Your task to perform on an android device: Open the web browser Image 0: 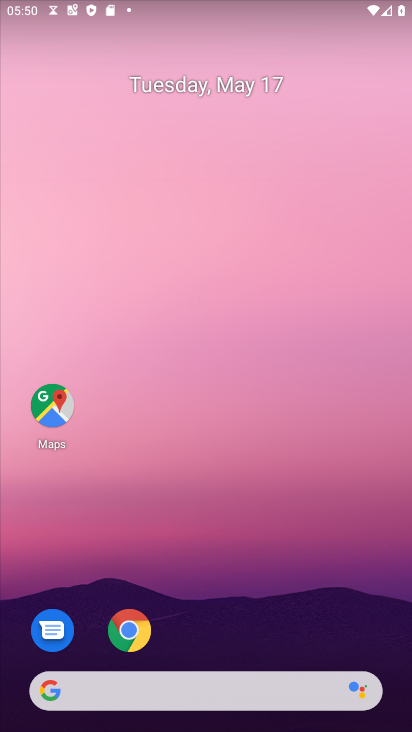
Step 0: click (126, 630)
Your task to perform on an android device: Open the web browser Image 1: 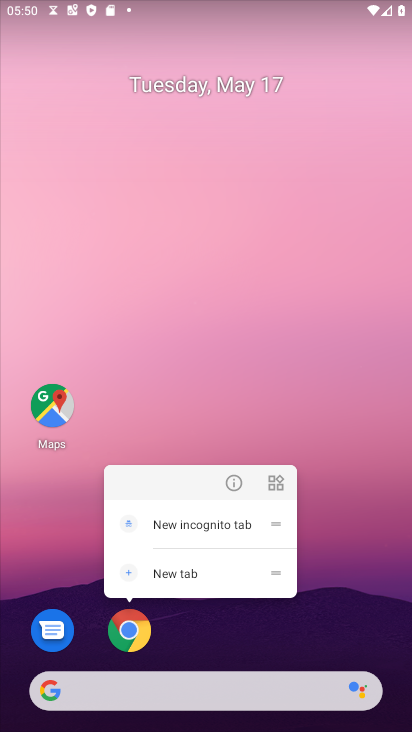
Step 1: click (138, 639)
Your task to perform on an android device: Open the web browser Image 2: 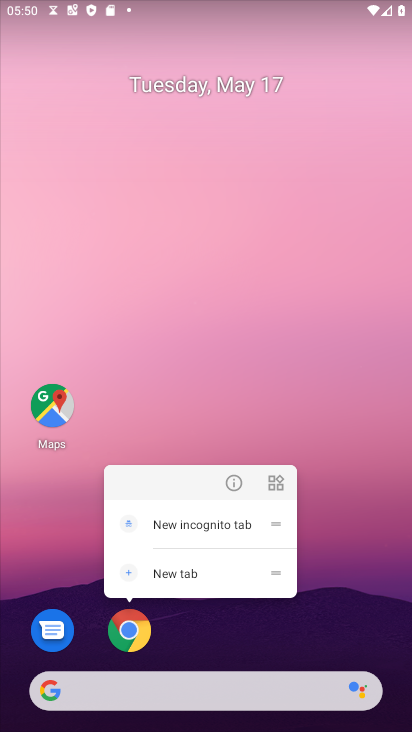
Step 2: click (136, 628)
Your task to perform on an android device: Open the web browser Image 3: 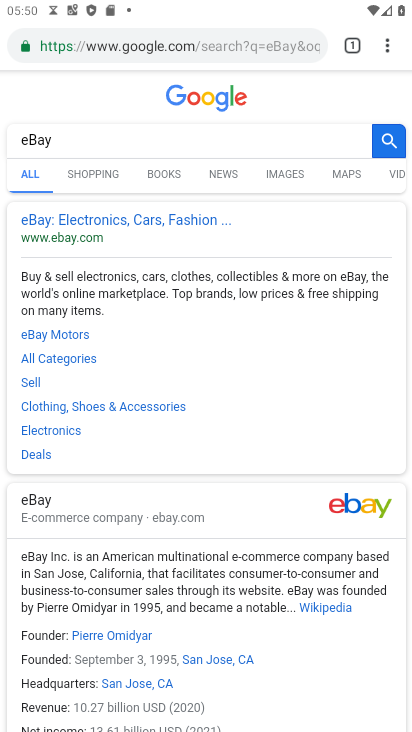
Step 3: click (299, 50)
Your task to perform on an android device: Open the web browser Image 4: 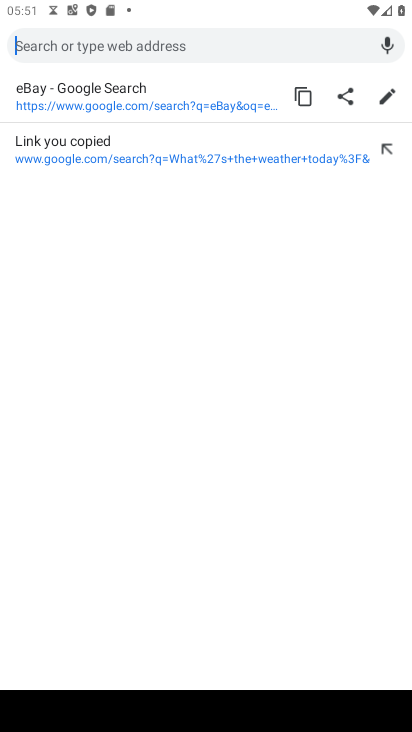
Step 4: type " web browser"
Your task to perform on an android device: Open the web browser Image 5: 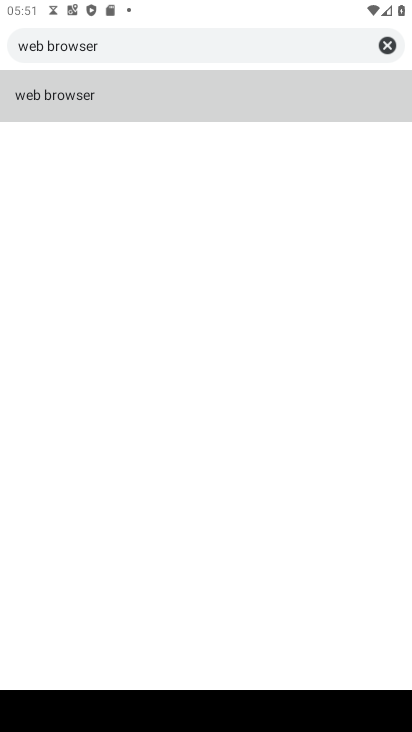
Step 5: click (60, 96)
Your task to perform on an android device: Open the web browser Image 6: 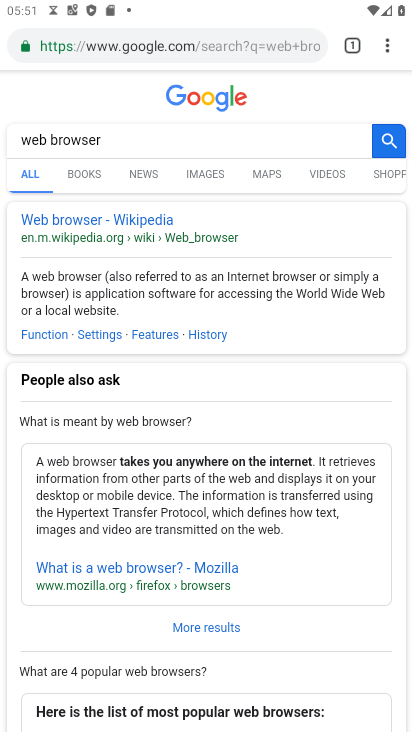
Step 6: task complete